Your task to perform on an android device: What's the weather going to be tomorrow? Image 0: 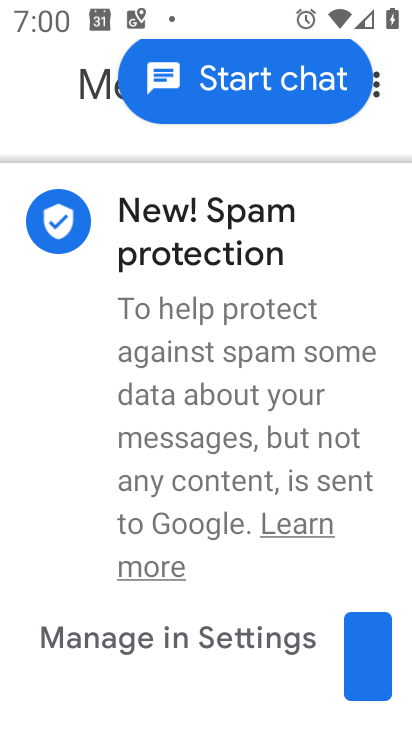
Step 0: drag from (255, 550) to (176, 175)
Your task to perform on an android device: What's the weather going to be tomorrow? Image 1: 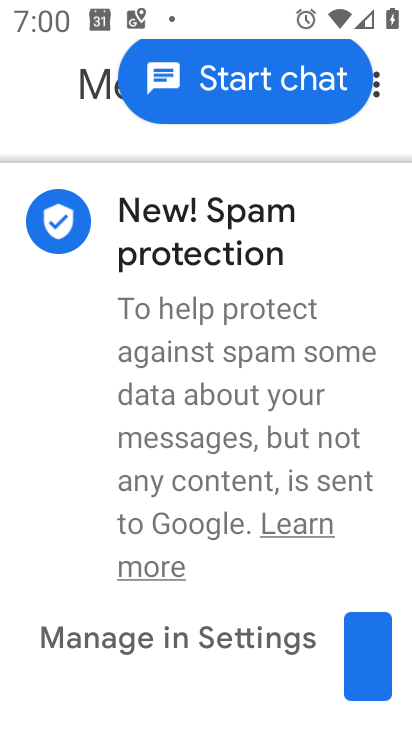
Step 1: press home button
Your task to perform on an android device: What's the weather going to be tomorrow? Image 2: 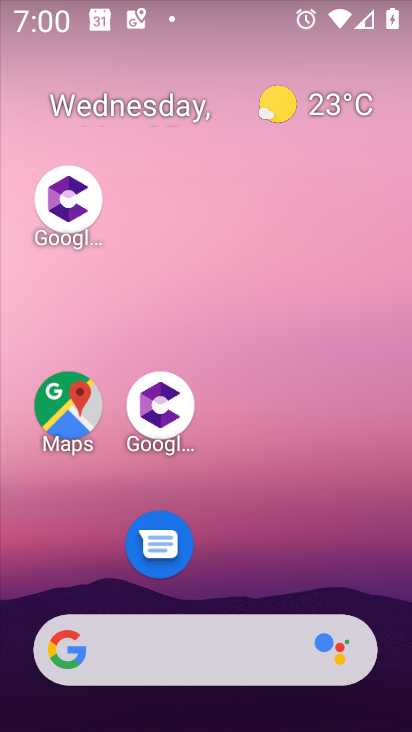
Step 2: click (182, 652)
Your task to perform on an android device: What's the weather going to be tomorrow? Image 3: 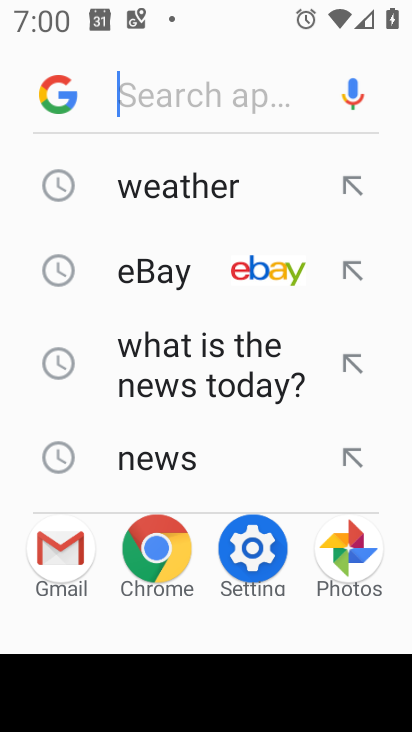
Step 3: click (169, 182)
Your task to perform on an android device: What's the weather going to be tomorrow? Image 4: 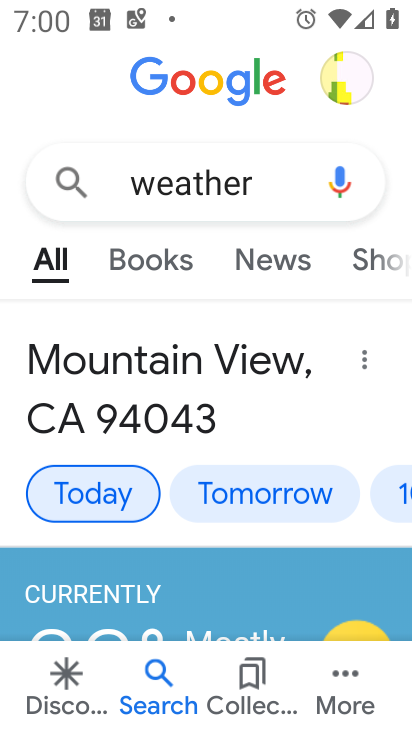
Step 4: click (258, 485)
Your task to perform on an android device: What's the weather going to be tomorrow? Image 5: 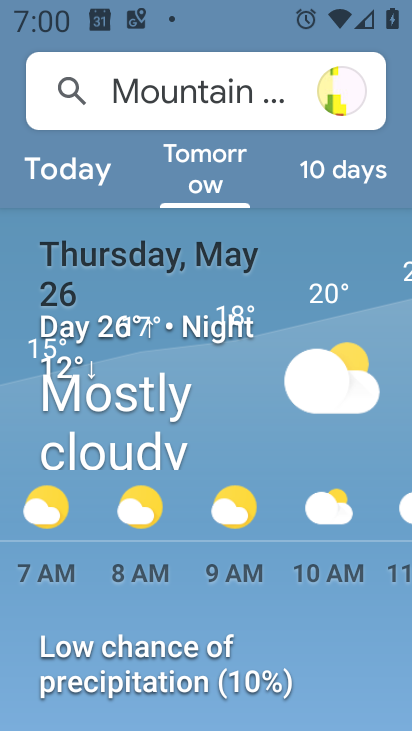
Step 5: task complete